Your task to perform on an android device: Open maps Image 0: 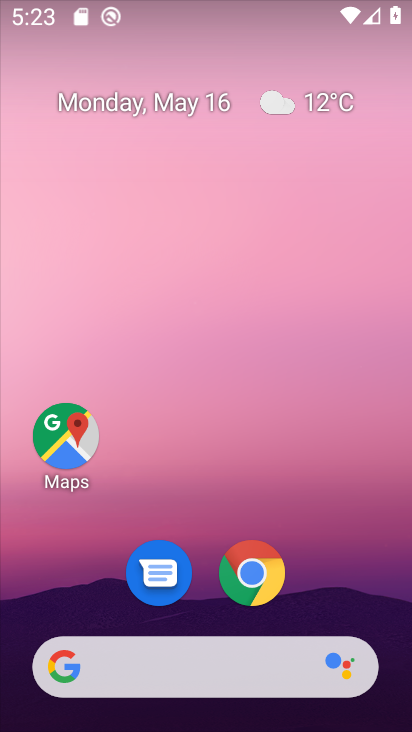
Step 0: click (58, 432)
Your task to perform on an android device: Open maps Image 1: 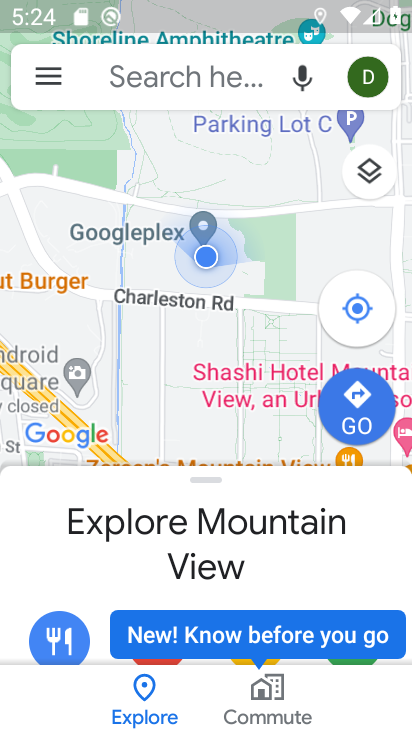
Step 1: task complete